Your task to perform on an android device: empty trash in google photos Image 0: 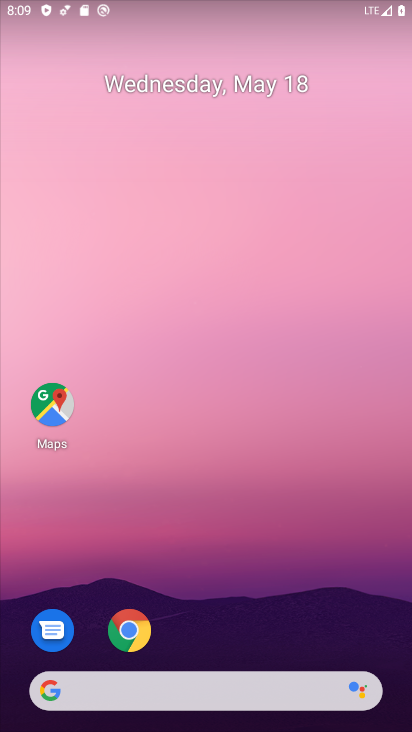
Step 0: press home button
Your task to perform on an android device: empty trash in google photos Image 1: 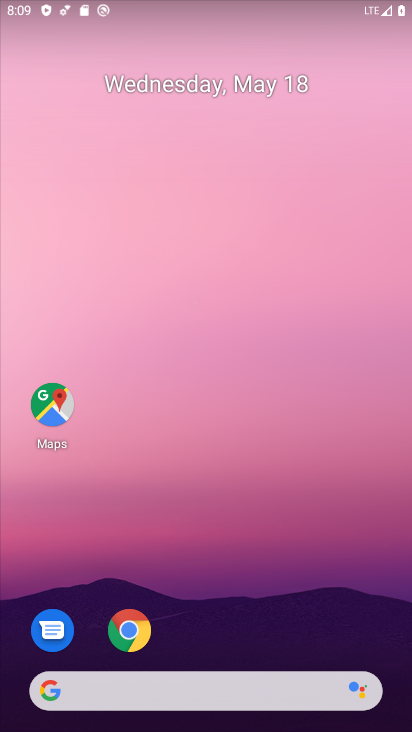
Step 1: drag from (155, 683) to (275, 246)
Your task to perform on an android device: empty trash in google photos Image 2: 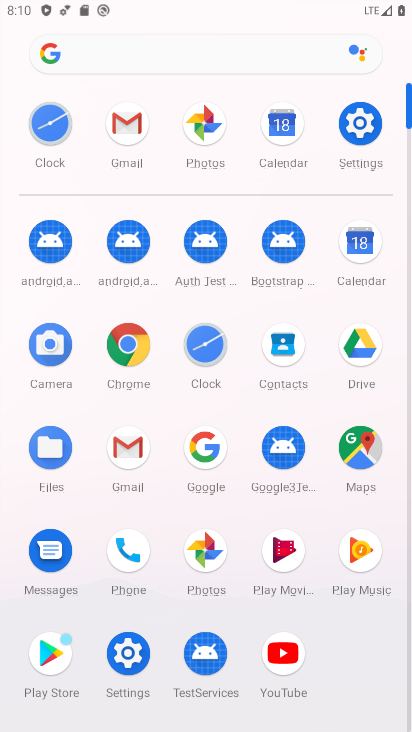
Step 2: click (206, 555)
Your task to perform on an android device: empty trash in google photos Image 3: 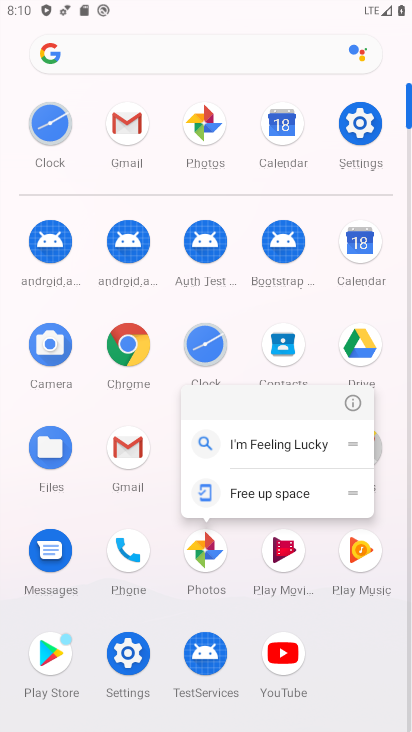
Step 3: click (206, 556)
Your task to perform on an android device: empty trash in google photos Image 4: 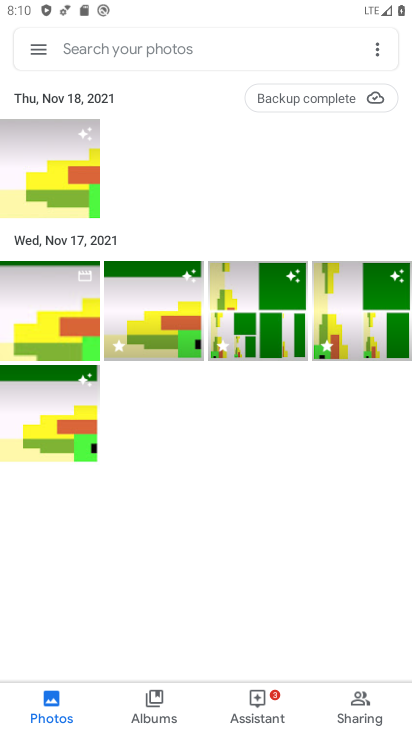
Step 4: click (34, 45)
Your task to perform on an android device: empty trash in google photos Image 5: 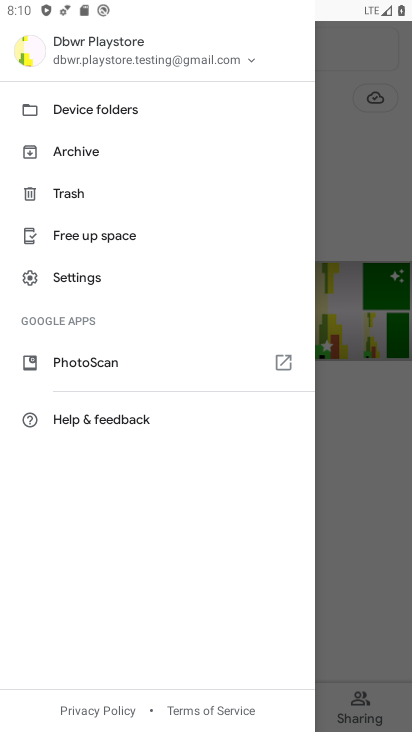
Step 5: click (71, 184)
Your task to perform on an android device: empty trash in google photos Image 6: 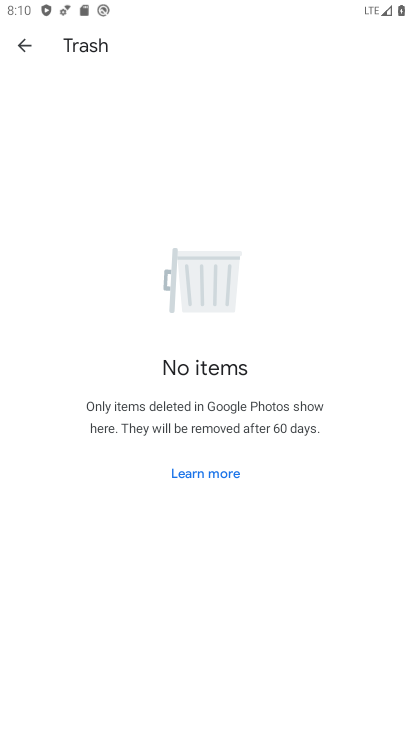
Step 6: task complete